Your task to perform on an android device: Show me productivity apps on the Play Store Image 0: 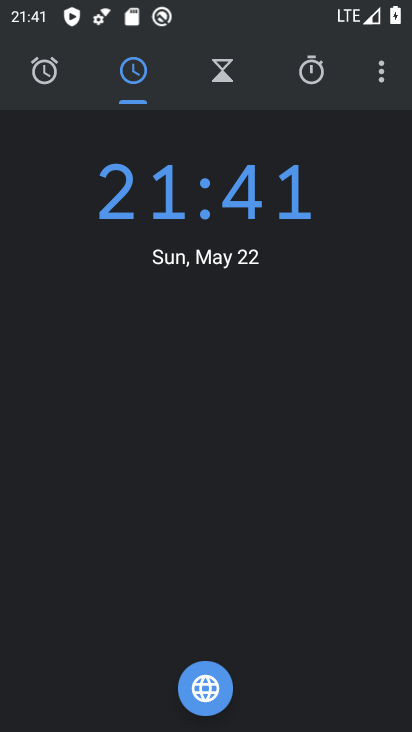
Step 0: press home button
Your task to perform on an android device: Show me productivity apps on the Play Store Image 1: 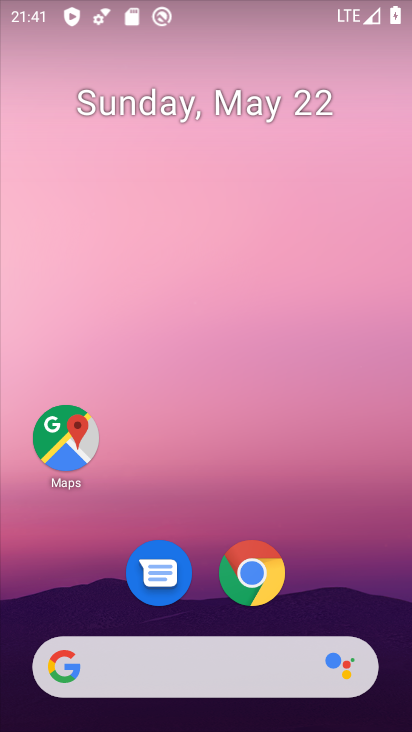
Step 1: drag from (384, 563) to (407, 13)
Your task to perform on an android device: Show me productivity apps on the Play Store Image 2: 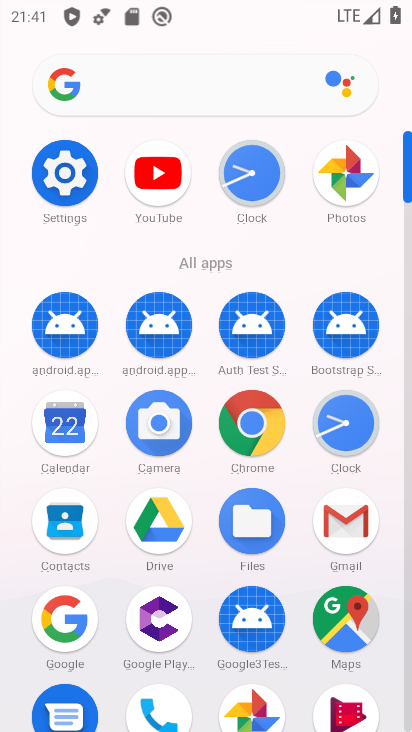
Step 2: click (408, 724)
Your task to perform on an android device: Show me productivity apps on the Play Store Image 3: 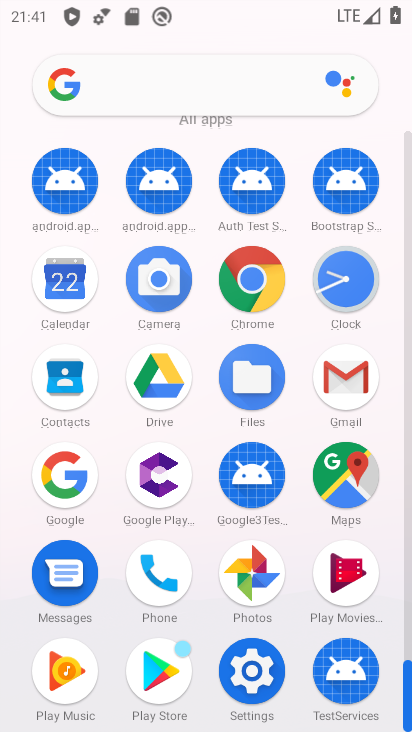
Step 3: click (148, 655)
Your task to perform on an android device: Show me productivity apps on the Play Store Image 4: 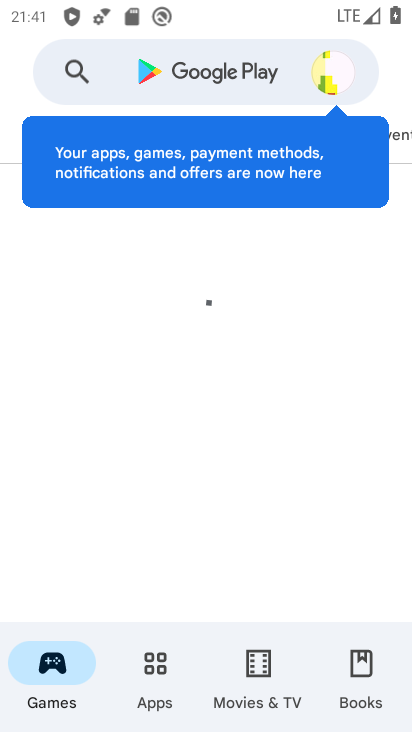
Step 4: click (257, 84)
Your task to perform on an android device: Show me productivity apps on the Play Store Image 5: 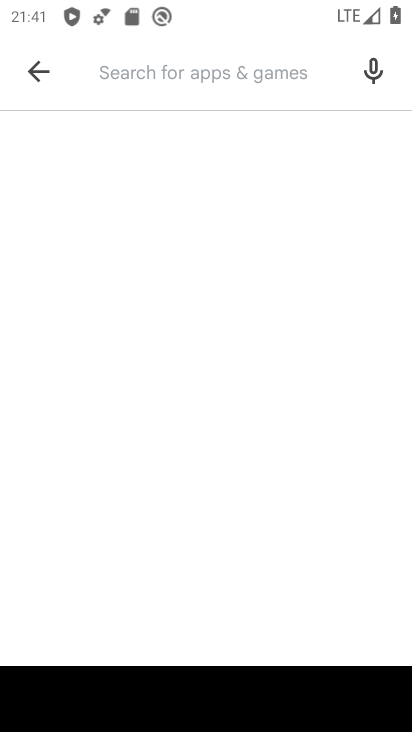
Step 5: type " productivity apps "
Your task to perform on an android device: Show me productivity apps on the Play Store Image 6: 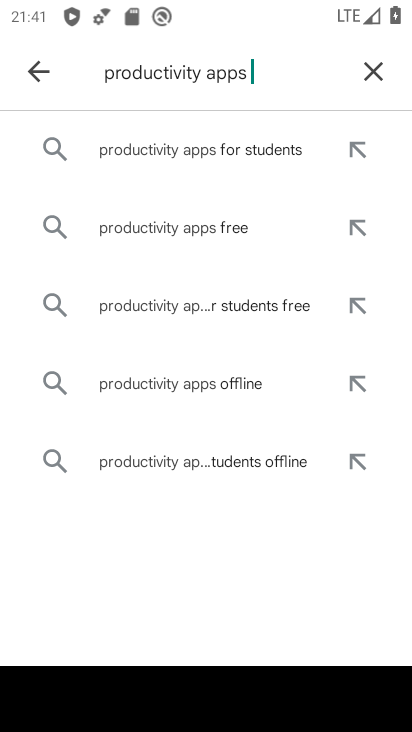
Step 6: click (180, 160)
Your task to perform on an android device: Show me productivity apps on the Play Store Image 7: 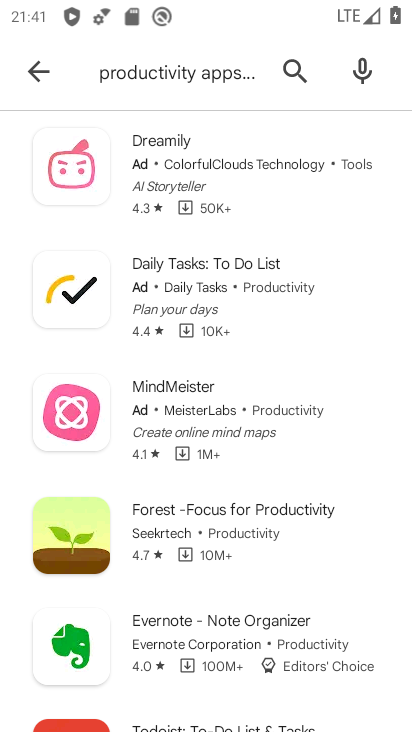
Step 7: task complete